Your task to perform on an android device: Do I have any events this weekend? Image 0: 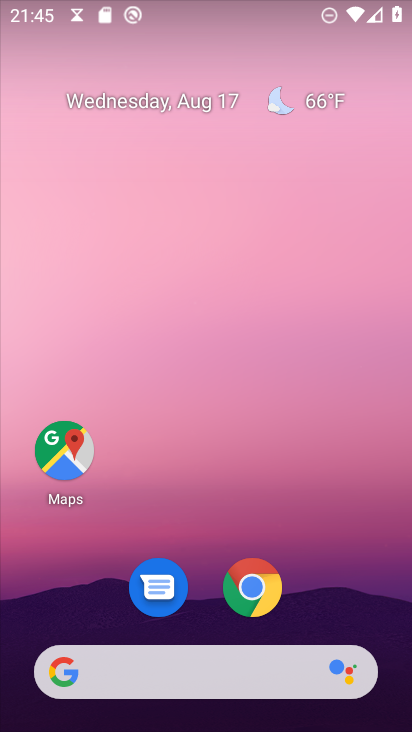
Step 0: drag from (19, 669) to (100, 251)
Your task to perform on an android device: Do I have any events this weekend? Image 1: 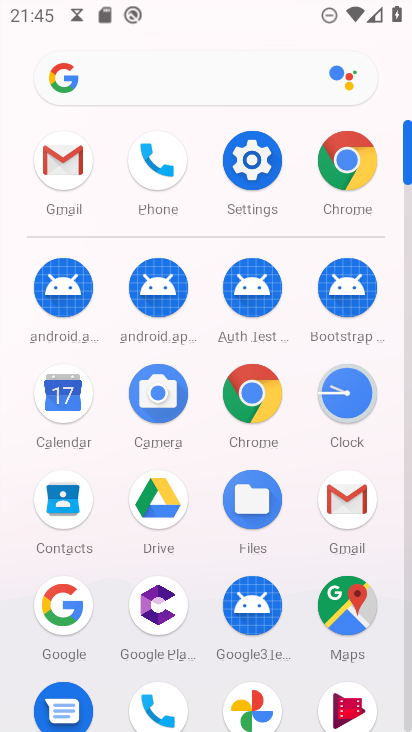
Step 1: click (49, 382)
Your task to perform on an android device: Do I have any events this weekend? Image 2: 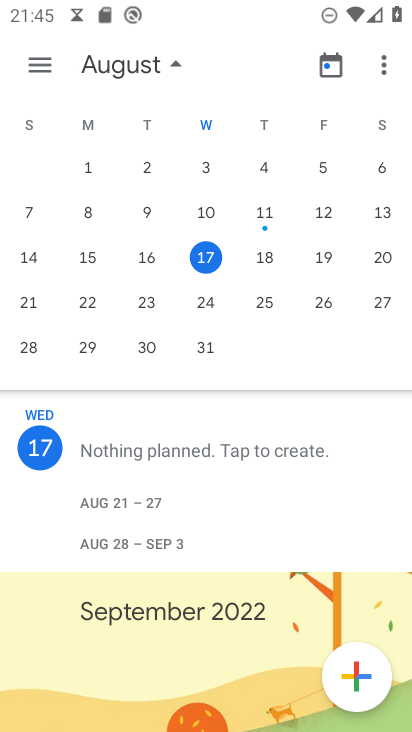
Step 2: task complete